Your task to perform on an android device: What's on my calendar tomorrow? Image 0: 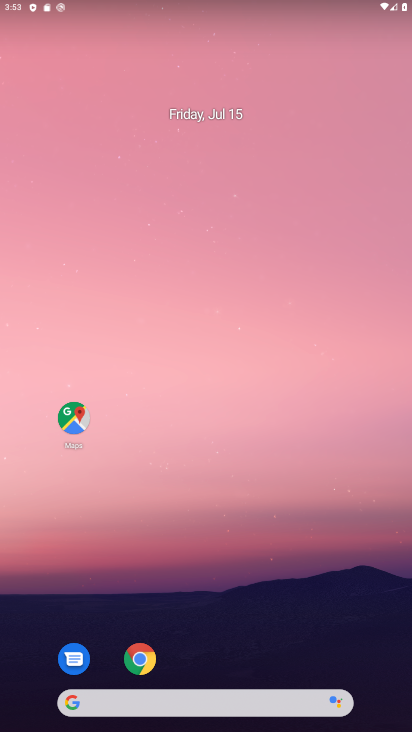
Step 0: drag from (324, 702) to (310, 113)
Your task to perform on an android device: What's on my calendar tomorrow? Image 1: 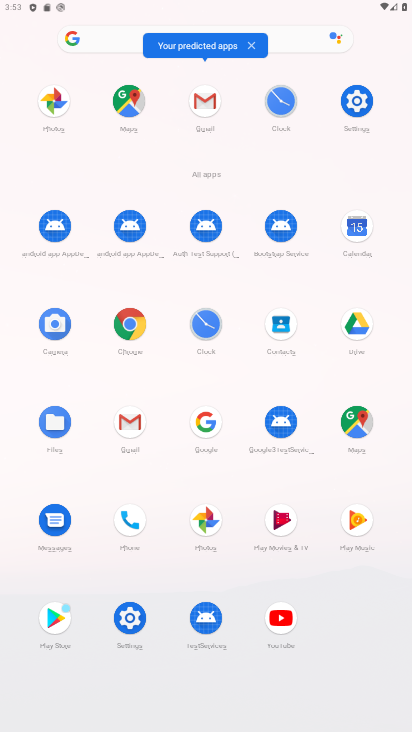
Step 1: click (353, 239)
Your task to perform on an android device: What's on my calendar tomorrow? Image 2: 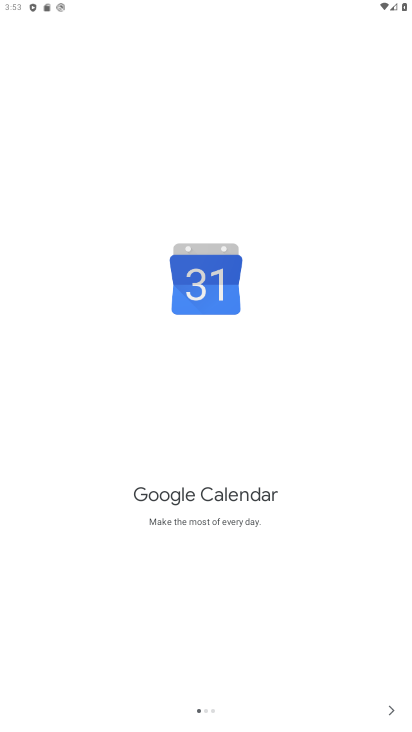
Step 2: click (388, 708)
Your task to perform on an android device: What's on my calendar tomorrow? Image 3: 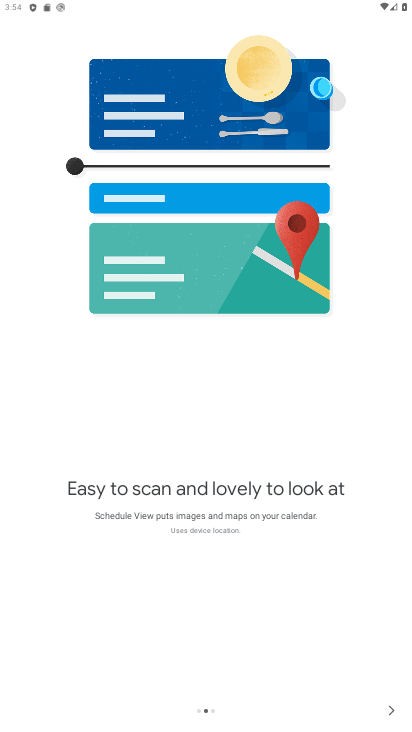
Step 3: click (395, 717)
Your task to perform on an android device: What's on my calendar tomorrow? Image 4: 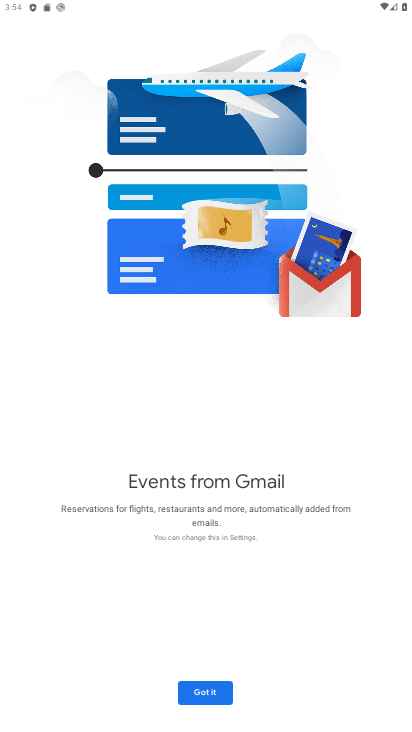
Step 4: click (396, 713)
Your task to perform on an android device: What's on my calendar tomorrow? Image 5: 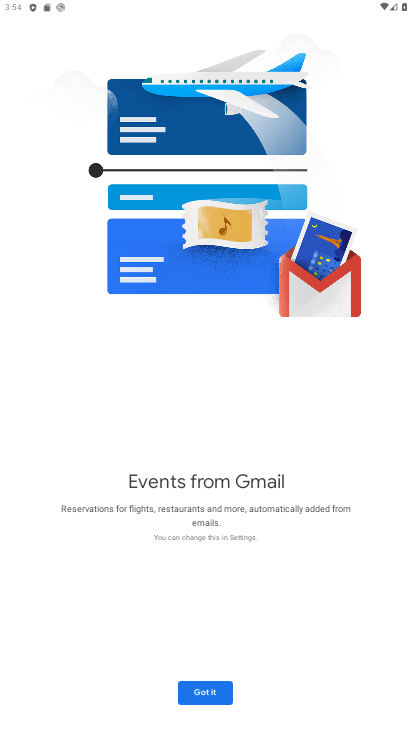
Step 5: click (211, 686)
Your task to perform on an android device: What's on my calendar tomorrow? Image 6: 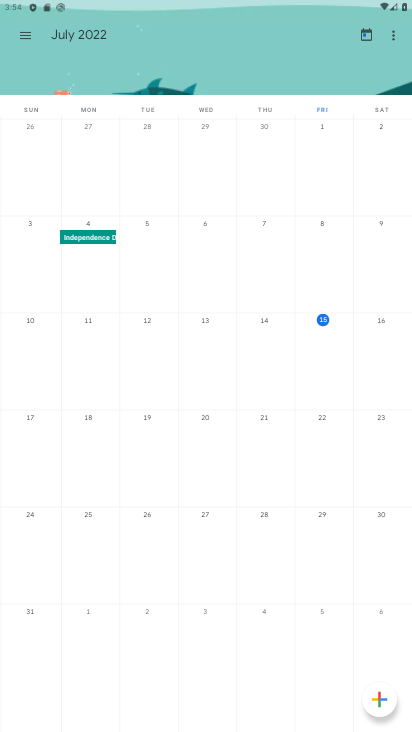
Step 6: drag from (249, 319) to (271, 372)
Your task to perform on an android device: What's on my calendar tomorrow? Image 7: 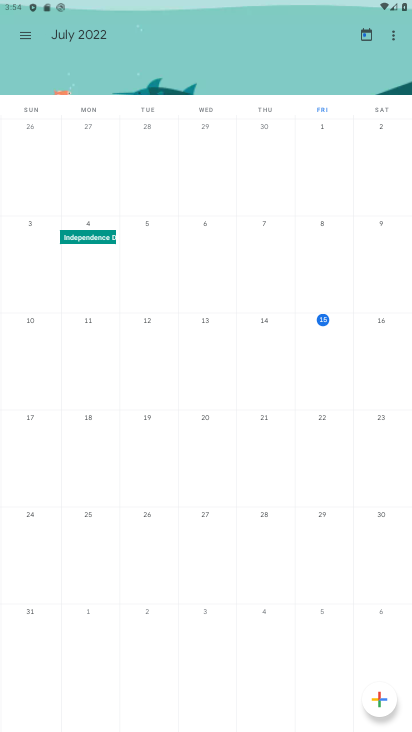
Step 7: click (381, 329)
Your task to perform on an android device: What's on my calendar tomorrow? Image 8: 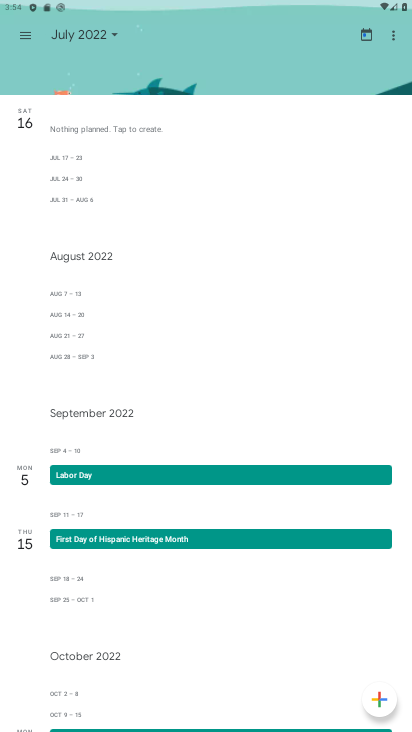
Step 8: task complete